Your task to perform on an android device: check google app version Image 0: 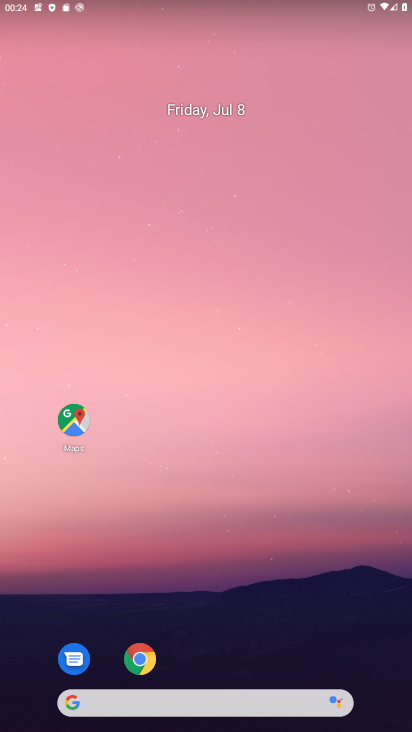
Step 0: click (104, 705)
Your task to perform on an android device: check google app version Image 1: 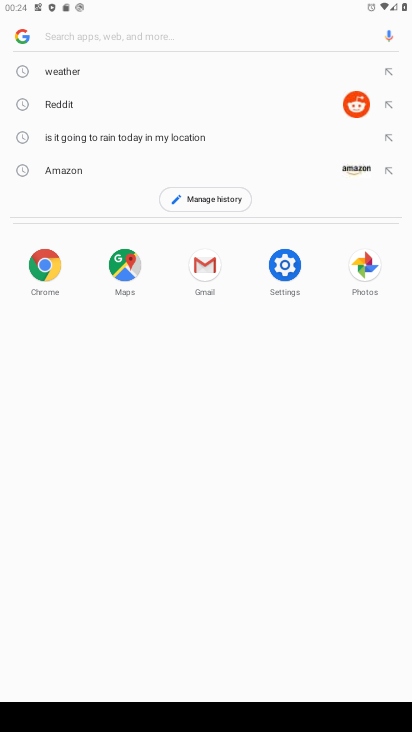
Step 1: click (20, 38)
Your task to perform on an android device: check google app version Image 2: 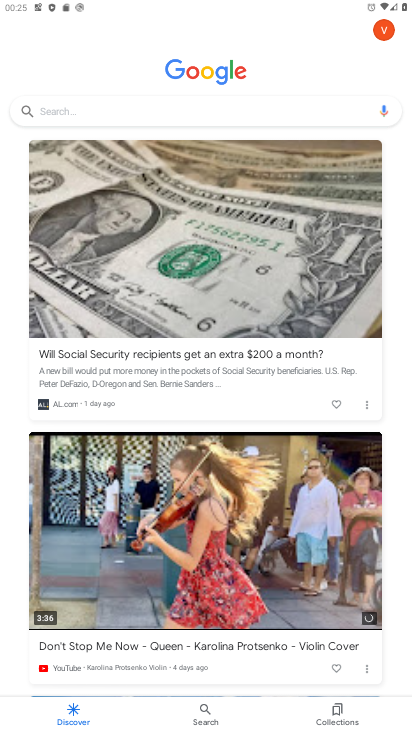
Step 2: click (391, 24)
Your task to perform on an android device: check google app version Image 3: 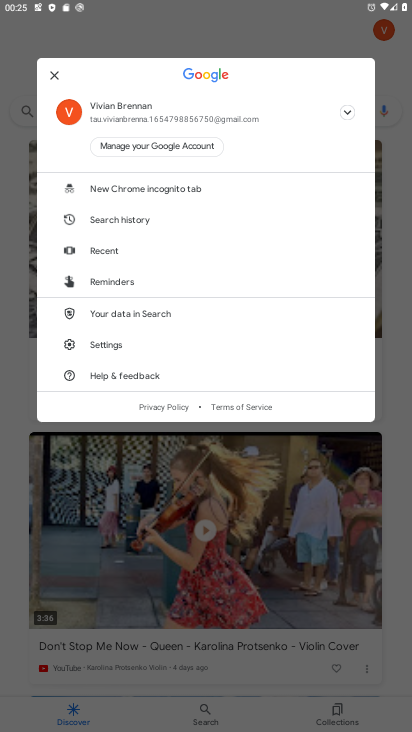
Step 3: click (115, 348)
Your task to perform on an android device: check google app version Image 4: 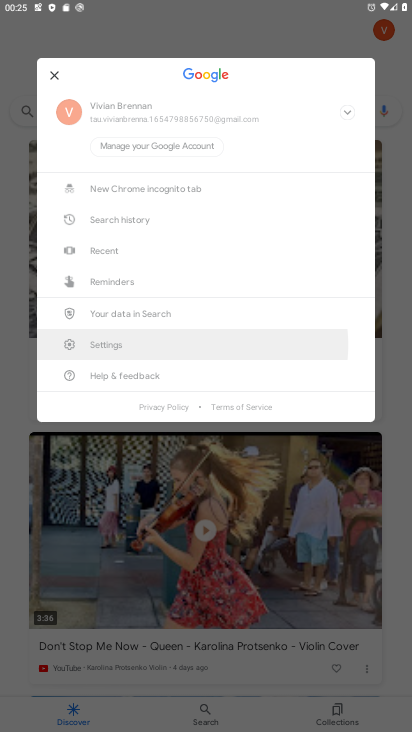
Step 4: click (115, 348)
Your task to perform on an android device: check google app version Image 5: 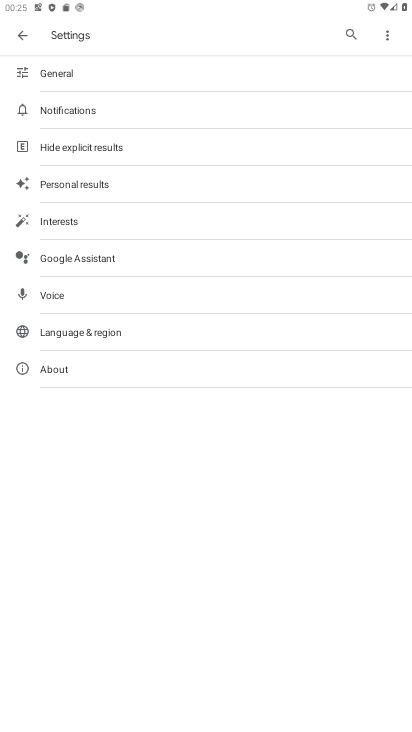
Step 5: click (87, 373)
Your task to perform on an android device: check google app version Image 6: 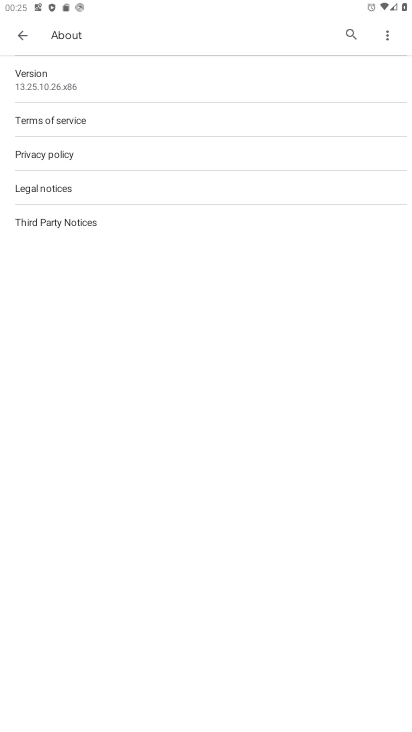
Step 6: click (162, 88)
Your task to perform on an android device: check google app version Image 7: 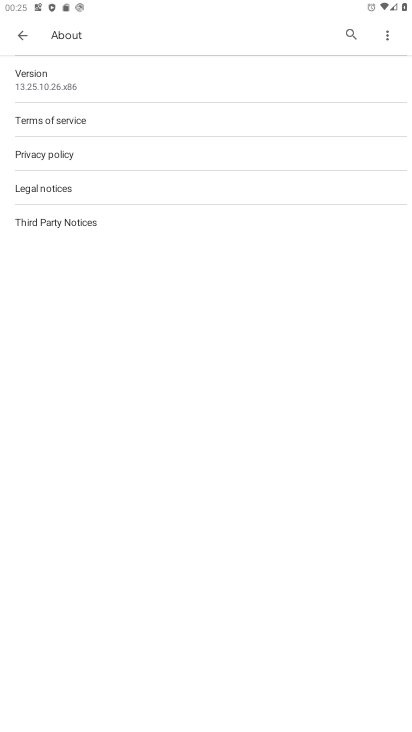
Step 7: task complete